Your task to perform on an android device: turn off sleep mode Image 0: 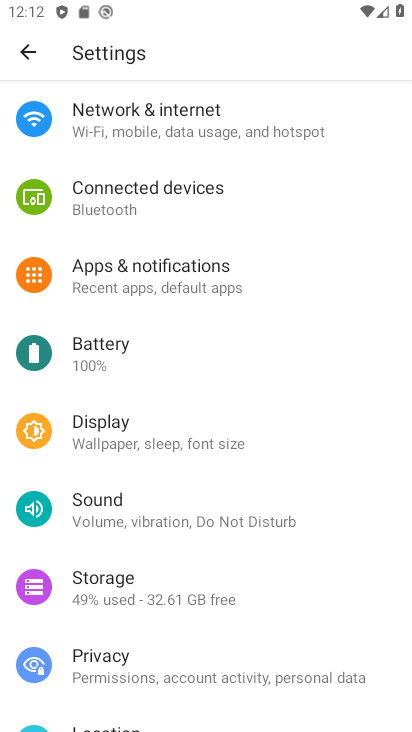
Step 0: click (175, 438)
Your task to perform on an android device: turn off sleep mode Image 1: 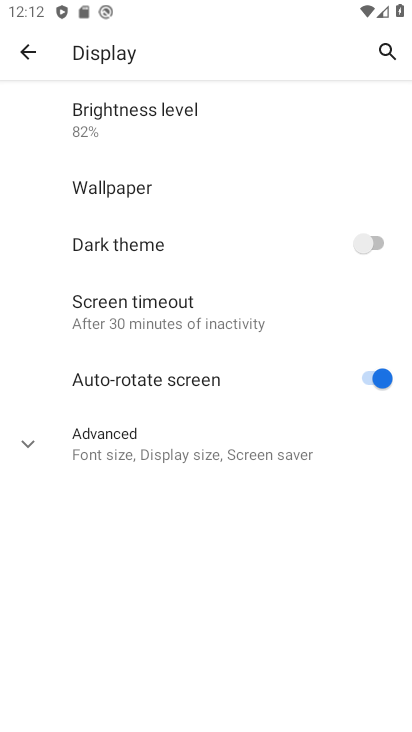
Step 1: task complete